Your task to perform on an android device: see creations saved in the google photos Image 0: 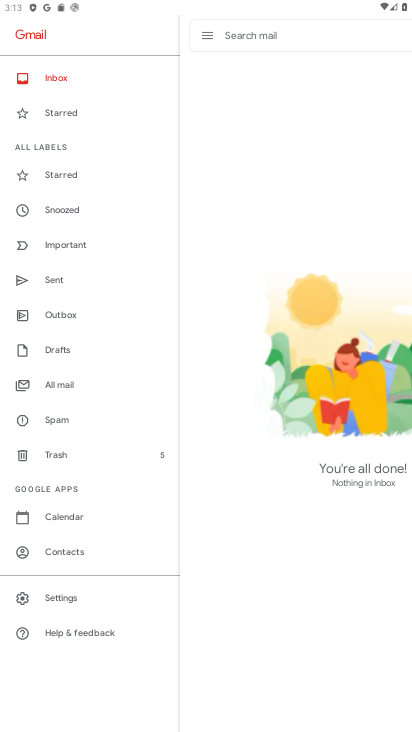
Step 0: press home button
Your task to perform on an android device: see creations saved in the google photos Image 1: 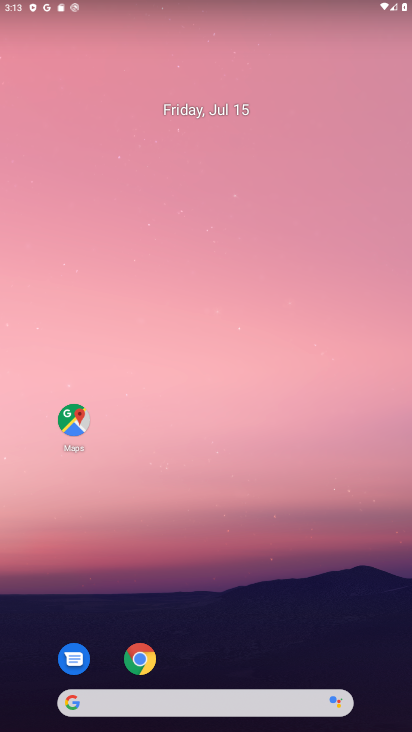
Step 1: drag from (236, 613) to (158, 154)
Your task to perform on an android device: see creations saved in the google photos Image 2: 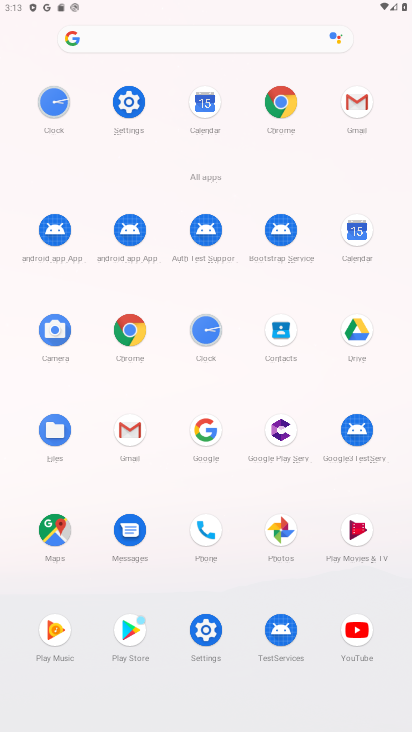
Step 2: click (279, 535)
Your task to perform on an android device: see creations saved in the google photos Image 3: 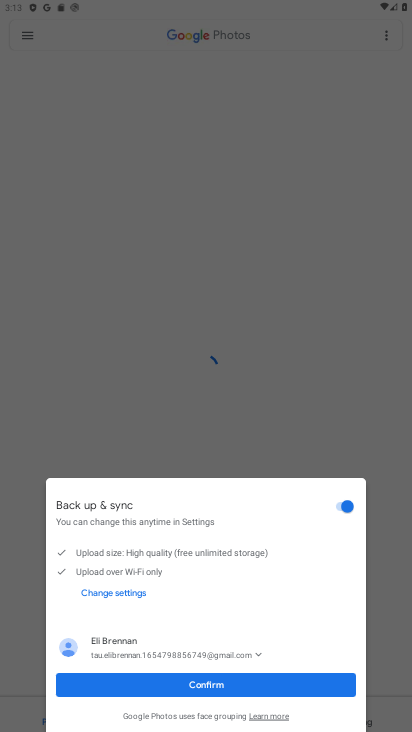
Step 3: click (195, 684)
Your task to perform on an android device: see creations saved in the google photos Image 4: 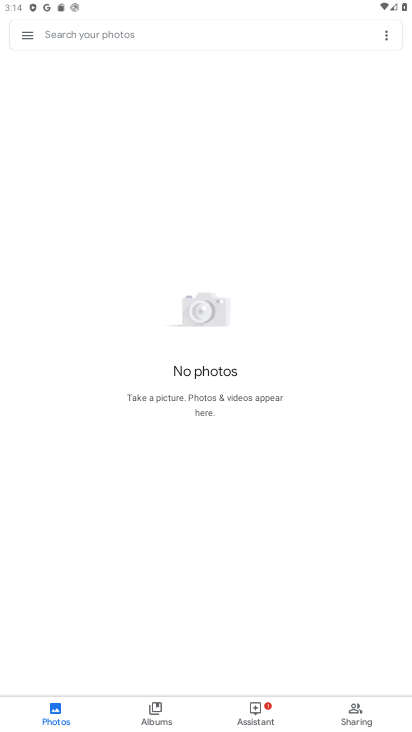
Step 4: click (93, 29)
Your task to perform on an android device: see creations saved in the google photos Image 5: 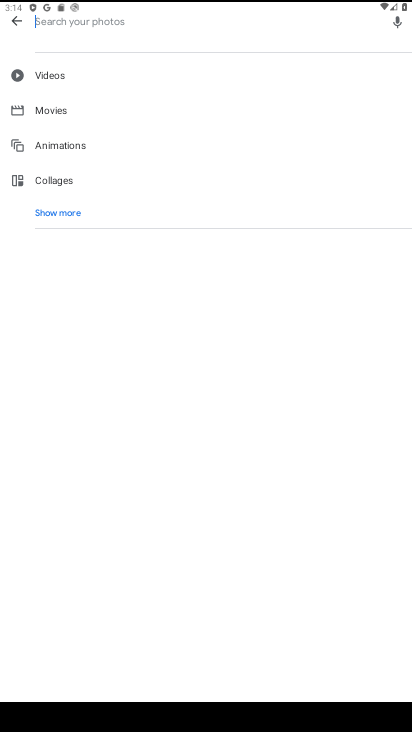
Step 5: click (53, 211)
Your task to perform on an android device: see creations saved in the google photos Image 6: 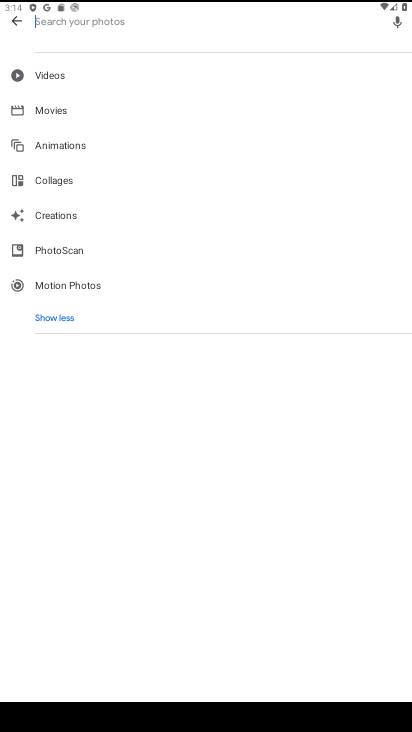
Step 6: click (48, 212)
Your task to perform on an android device: see creations saved in the google photos Image 7: 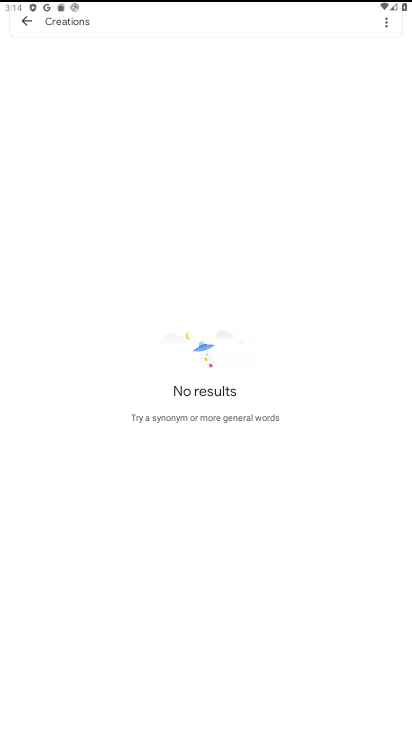
Step 7: task complete